Your task to perform on an android device: turn on data saver in the chrome app Image 0: 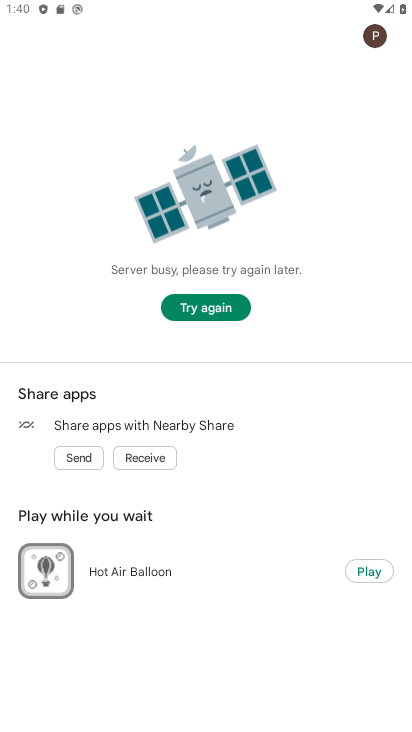
Step 0: press home button
Your task to perform on an android device: turn on data saver in the chrome app Image 1: 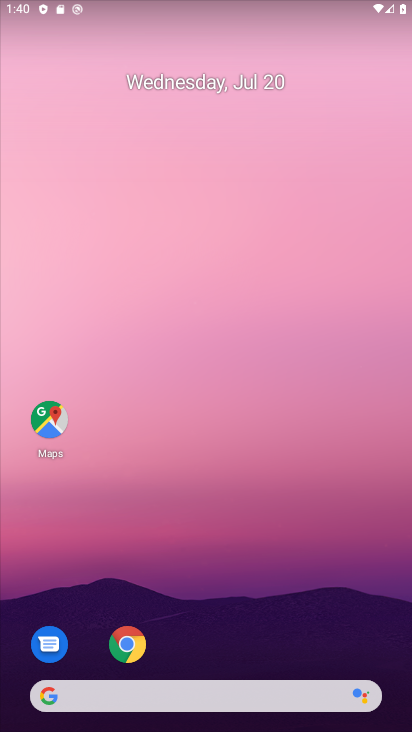
Step 1: click (130, 637)
Your task to perform on an android device: turn on data saver in the chrome app Image 2: 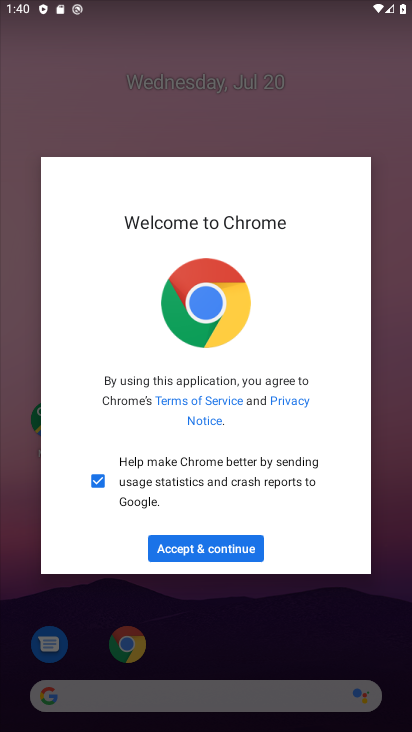
Step 2: click (212, 558)
Your task to perform on an android device: turn on data saver in the chrome app Image 3: 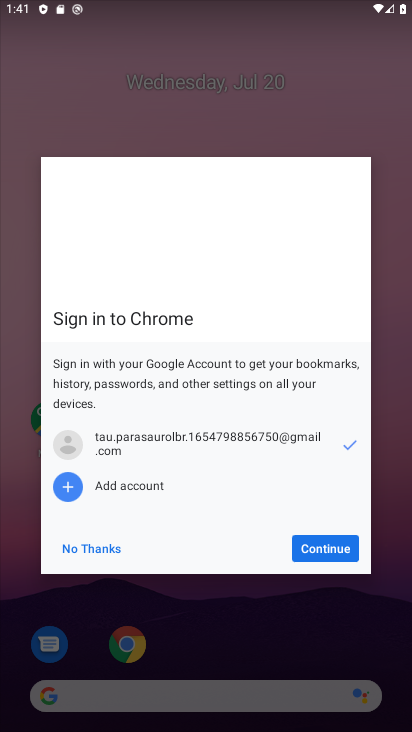
Step 3: click (309, 555)
Your task to perform on an android device: turn on data saver in the chrome app Image 4: 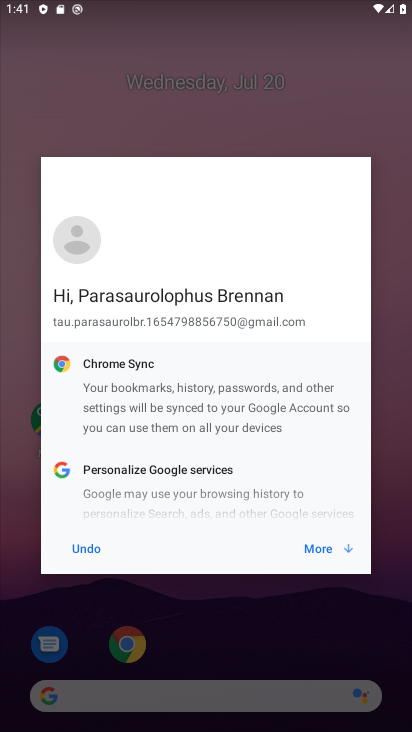
Step 4: click (309, 555)
Your task to perform on an android device: turn on data saver in the chrome app Image 5: 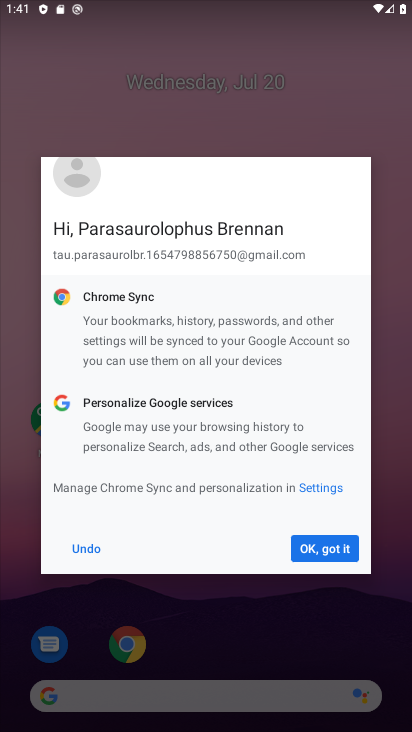
Step 5: click (309, 555)
Your task to perform on an android device: turn on data saver in the chrome app Image 6: 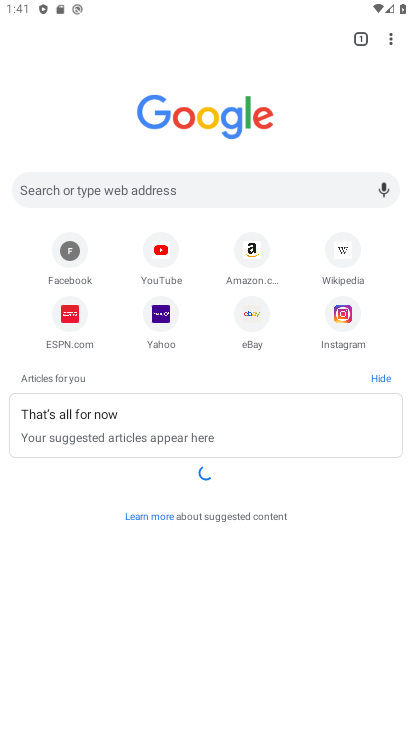
Step 6: drag from (394, 40) to (306, 340)
Your task to perform on an android device: turn on data saver in the chrome app Image 7: 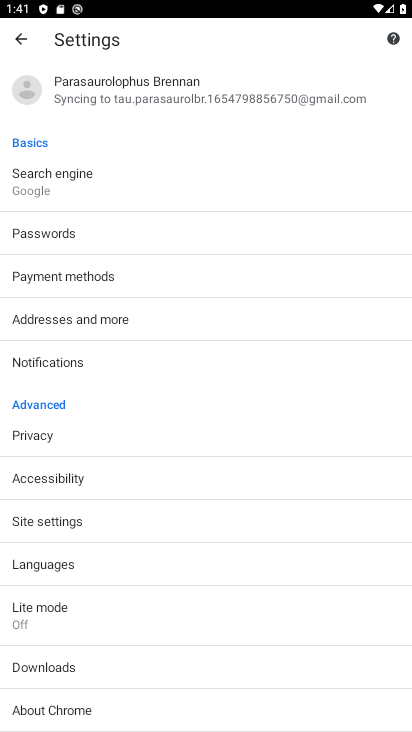
Step 7: click (102, 606)
Your task to perform on an android device: turn on data saver in the chrome app Image 8: 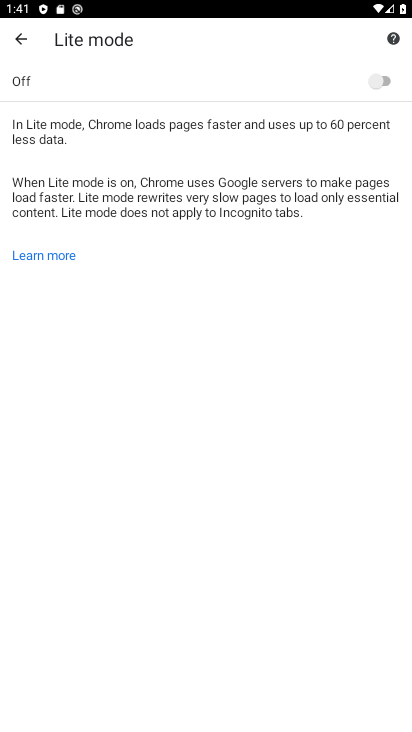
Step 8: click (388, 76)
Your task to perform on an android device: turn on data saver in the chrome app Image 9: 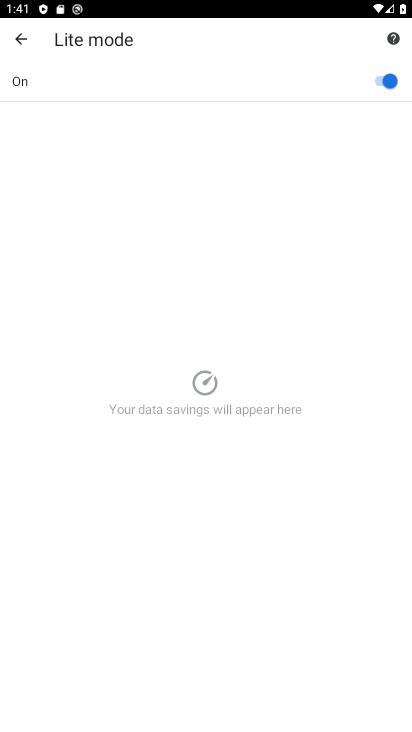
Step 9: task complete